Your task to perform on an android device: Go to network settings Image 0: 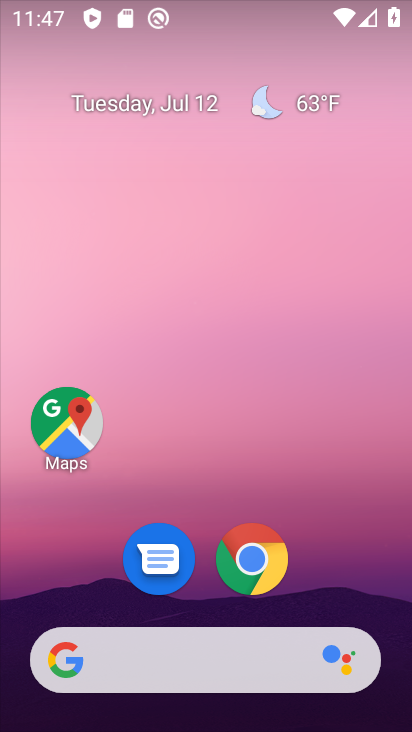
Step 0: drag from (362, 582) to (350, 138)
Your task to perform on an android device: Go to network settings Image 1: 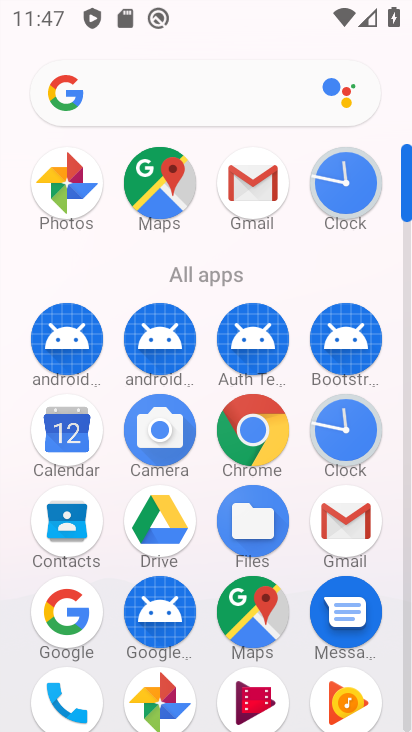
Step 1: drag from (381, 484) to (380, 261)
Your task to perform on an android device: Go to network settings Image 2: 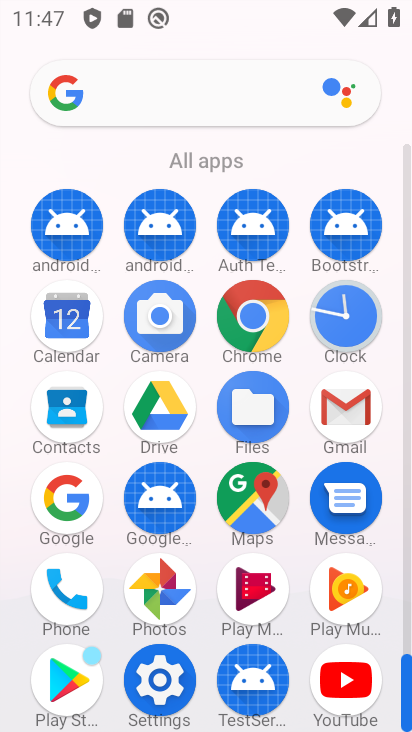
Step 2: click (176, 701)
Your task to perform on an android device: Go to network settings Image 3: 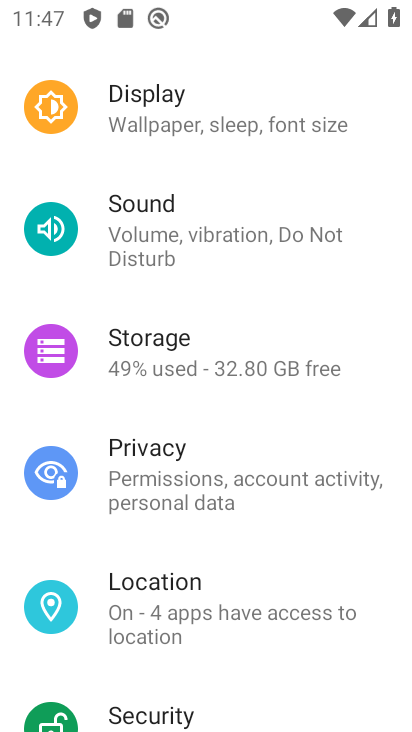
Step 3: drag from (365, 266) to (371, 466)
Your task to perform on an android device: Go to network settings Image 4: 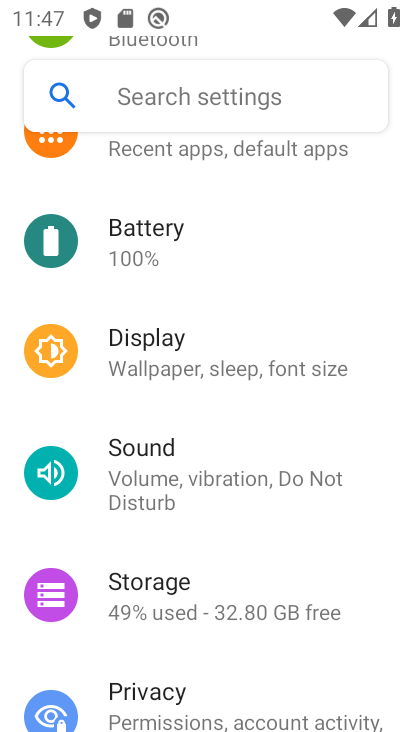
Step 4: drag from (364, 246) to (373, 483)
Your task to perform on an android device: Go to network settings Image 5: 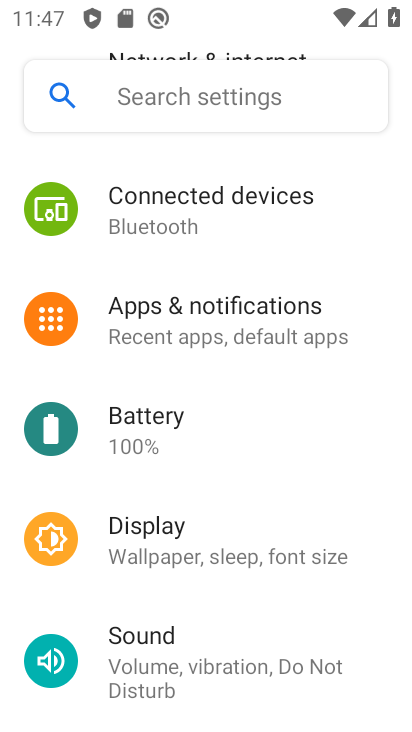
Step 5: drag from (352, 251) to (375, 407)
Your task to perform on an android device: Go to network settings Image 6: 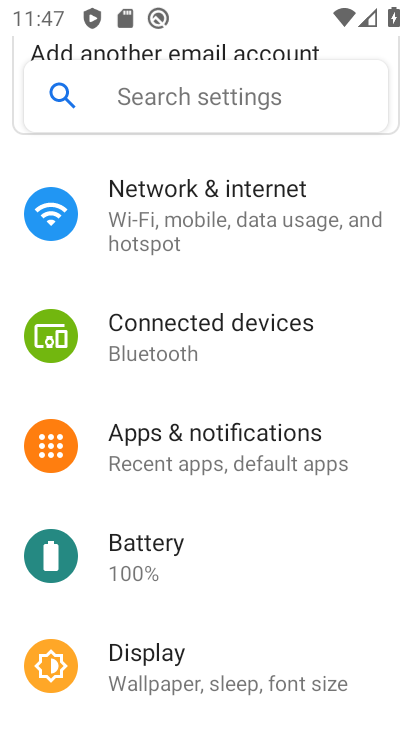
Step 6: drag from (343, 308) to (348, 441)
Your task to perform on an android device: Go to network settings Image 7: 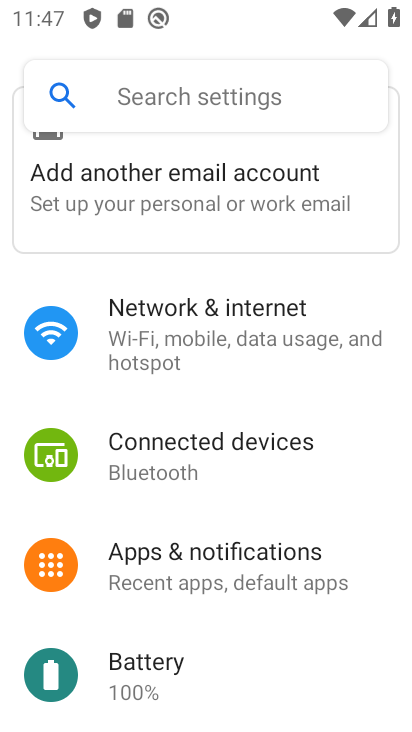
Step 7: drag from (348, 162) to (347, 419)
Your task to perform on an android device: Go to network settings Image 8: 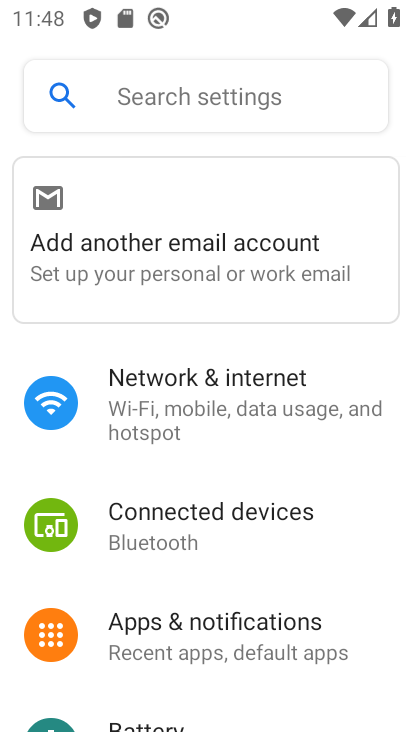
Step 8: click (239, 398)
Your task to perform on an android device: Go to network settings Image 9: 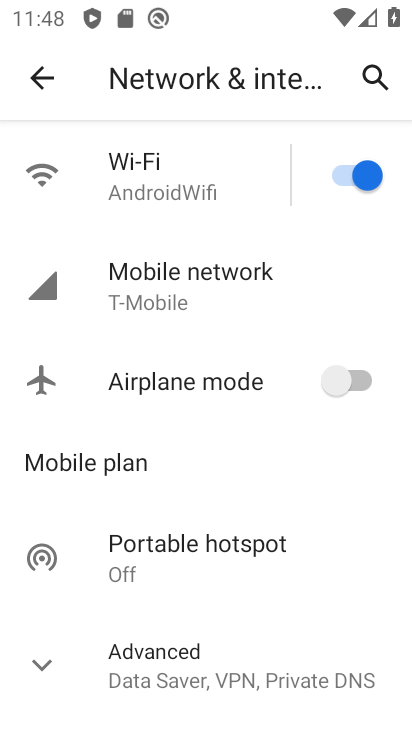
Step 9: task complete